Your task to perform on an android device: empty trash in the gmail app Image 0: 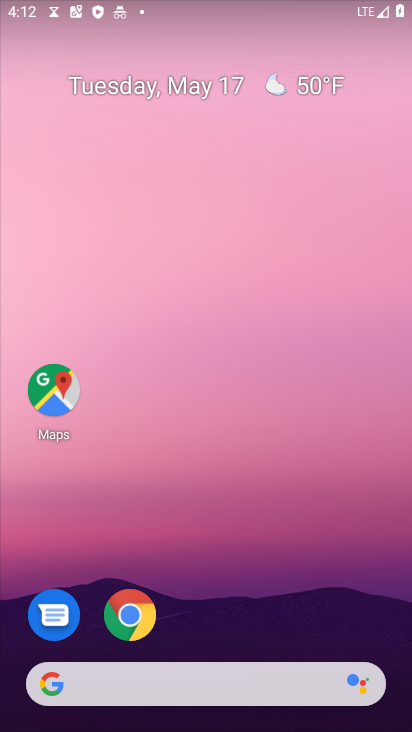
Step 0: drag from (303, 678) to (250, 98)
Your task to perform on an android device: empty trash in the gmail app Image 1: 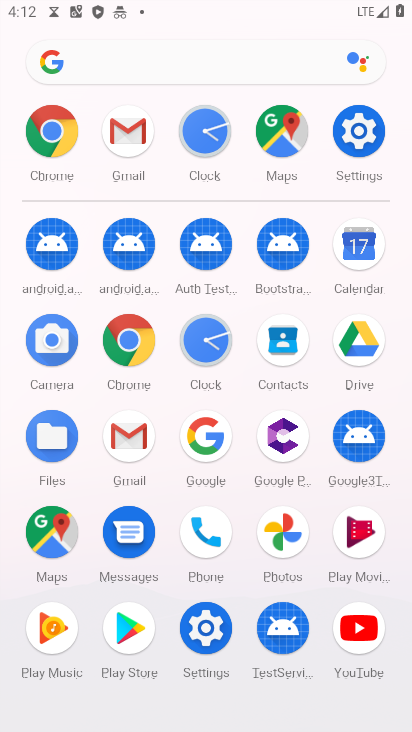
Step 1: click (126, 430)
Your task to perform on an android device: empty trash in the gmail app Image 2: 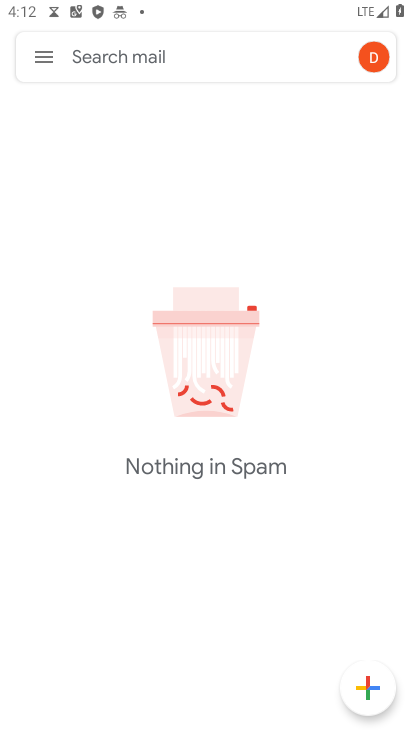
Step 2: click (42, 54)
Your task to perform on an android device: empty trash in the gmail app Image 3: 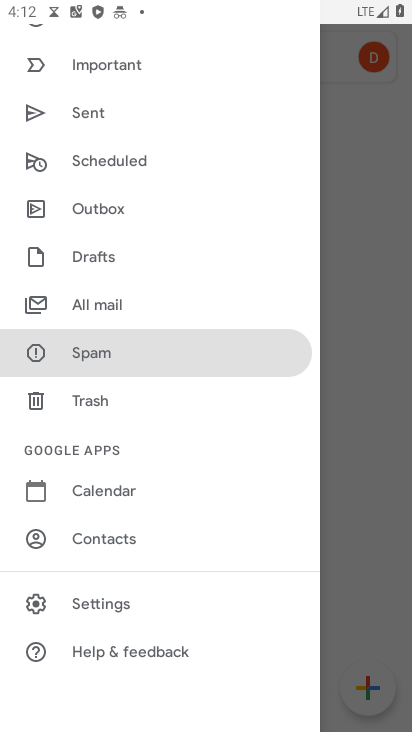
Step 3: click (92, 349)
Your task to perform on an android device: empty trash in the gmail app Image 4: 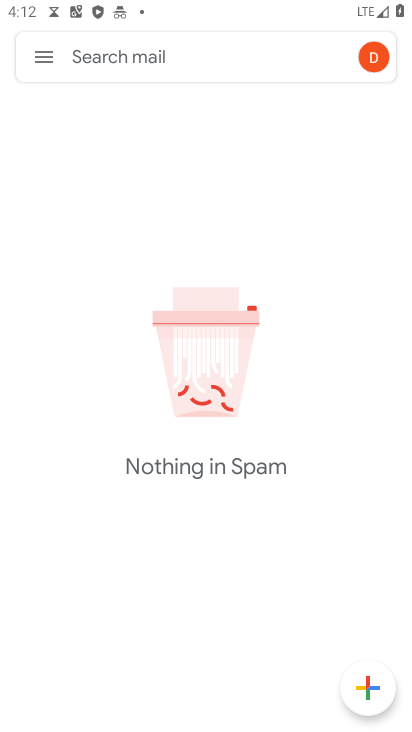
Step 4: click (35, 53)
Your task to perform on an android device: empty trash in the gmail app Image 5: 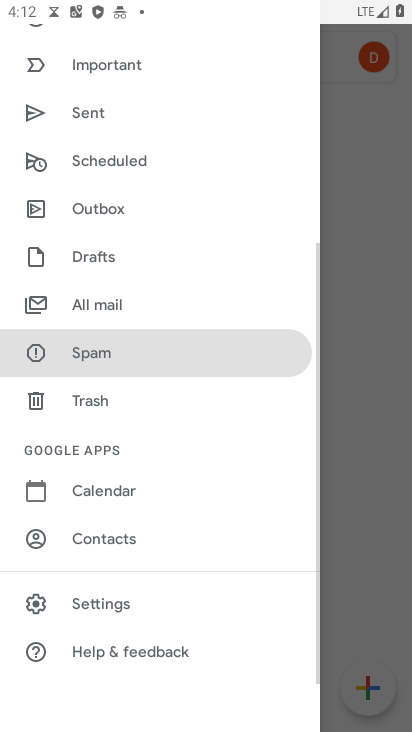
Step 5: click (76, 405)
Your task to perform on an android device: empty trash in the gmail app Image 6: 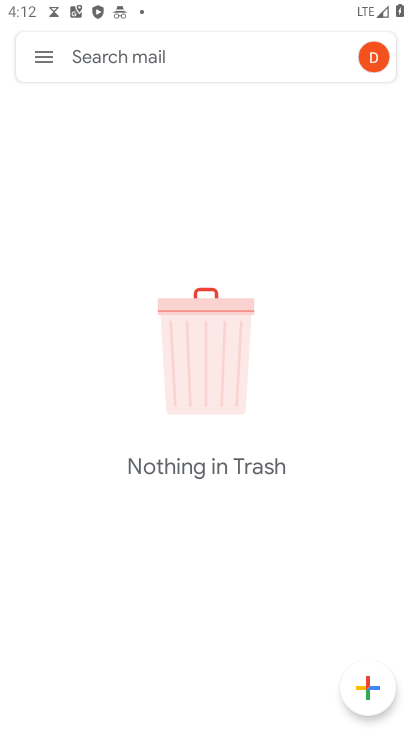
Step 6: task complete